Your task to perform on an android device: show emergency info Image 0: 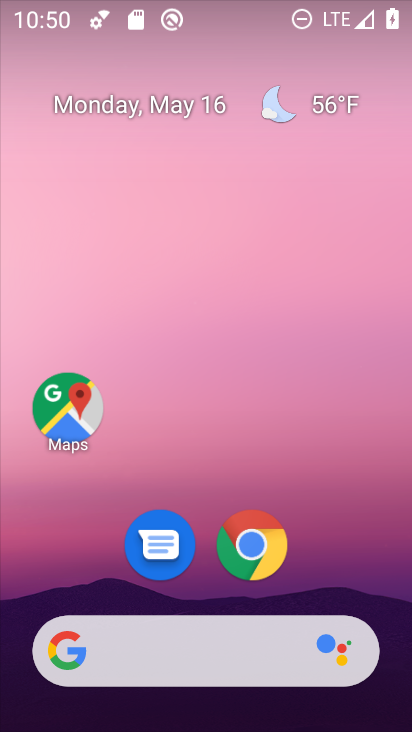
Step 0: drag from (304, 554) to (253, 110)
Your task to perform on an android device: show emergency info Image 1: 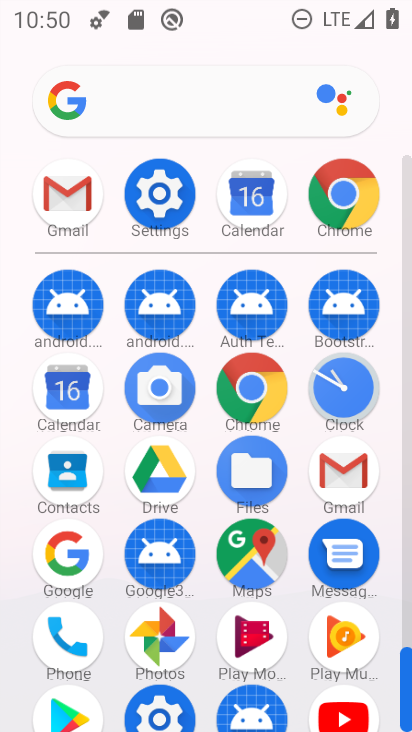
Step 1: click (159, 195)
Your task to perform on an android device: show emergency info Image 2: 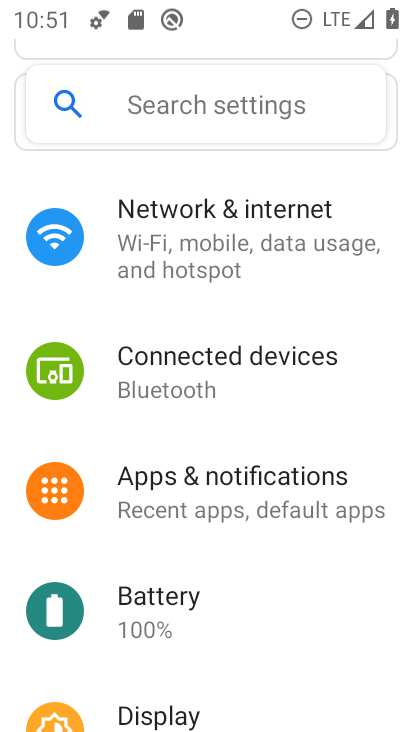
Step 2: drag from (235, 636) to (206, 339)
Your task to perform on an android device: show emergency info Image 3: 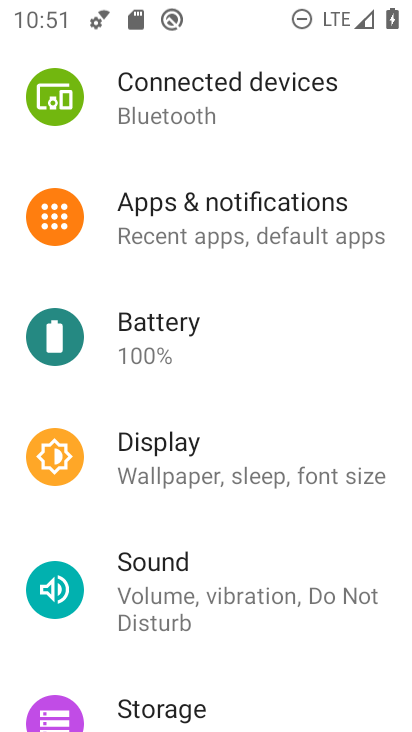
Step 3: drag from (228, 550) to (217, 396)
Your task to perform on an android device: show emergency info Image 4: 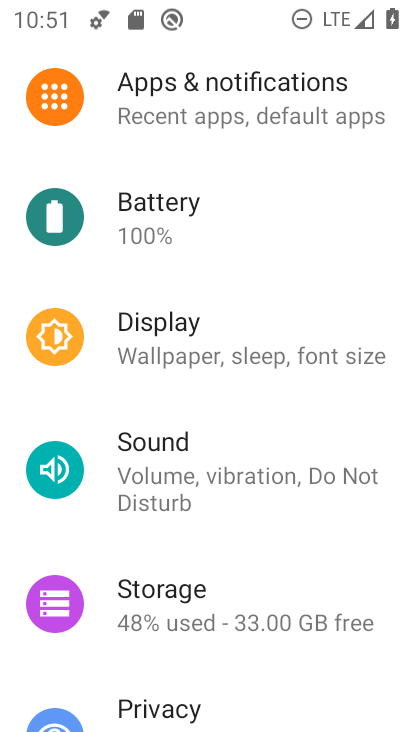
Step 4: drag from (230, 666) to (238, 453)
Your task to perform on an android device: show emergency info Image 5: 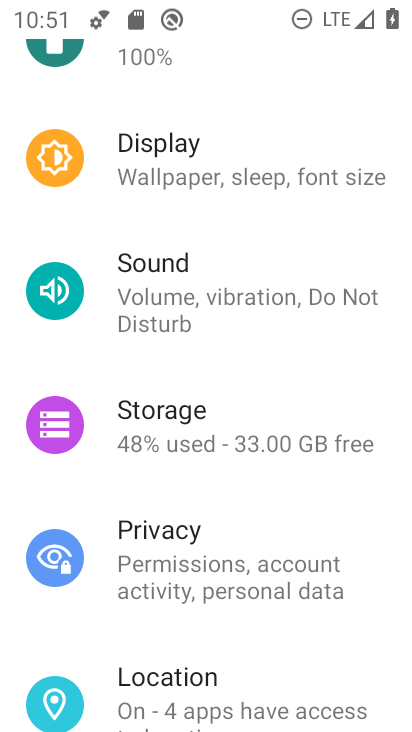
Step 5: drag from (197, 641) to (222, 400)
Your task to perform on an android device: show emergency info Image 6: 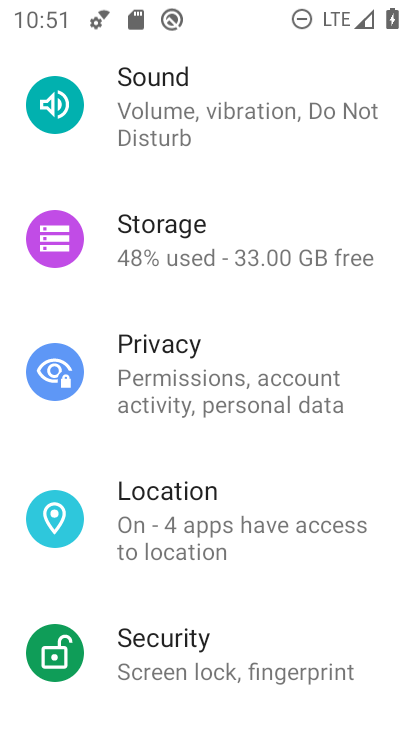
Step 6: drag from (170, 607) to (209, 361)
Your task to perform on an android device: show emergency info Image 7: 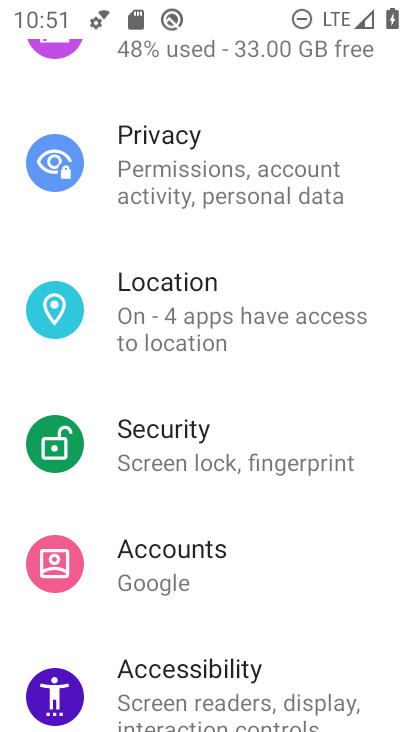
Step 7: drag from (183, 529) to (199, 351)
Your task to perform on an android device: show emergency info Image 8: 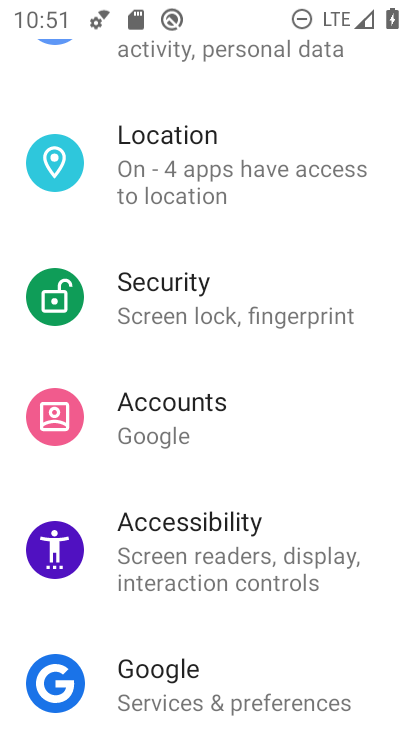
Step 8: drag from (174, 618) to (198, 406)
Your task to perform on an android device: show emergency info Image 9: 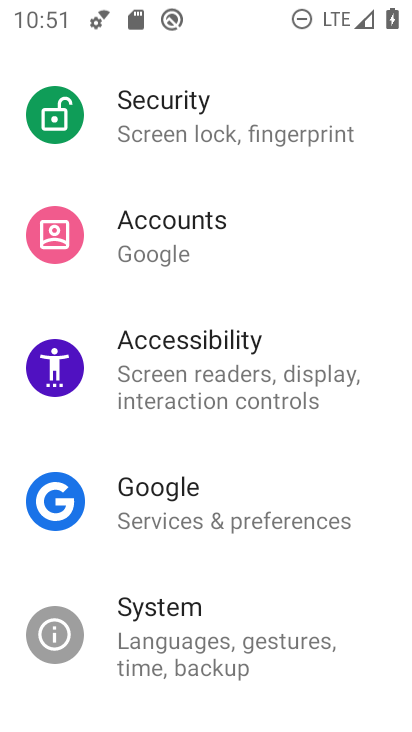
Step 9: drag from (166, 583) to (221, 414)
Your task to perform on an android device: show emergency info Image 10: 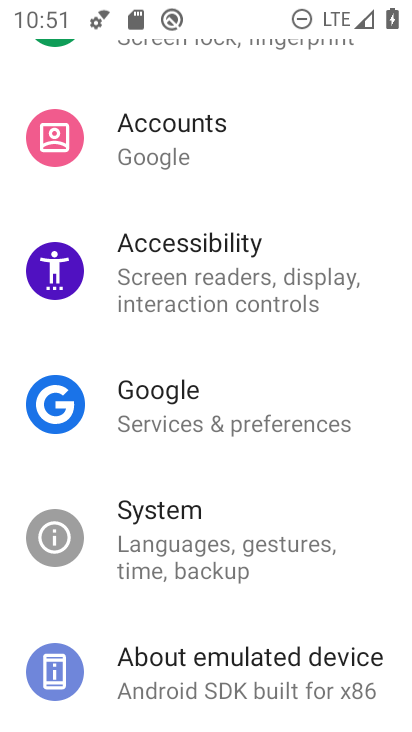
Step 10: click (196, 665)
Your task to perform on an android device: show emergency info Image 11: 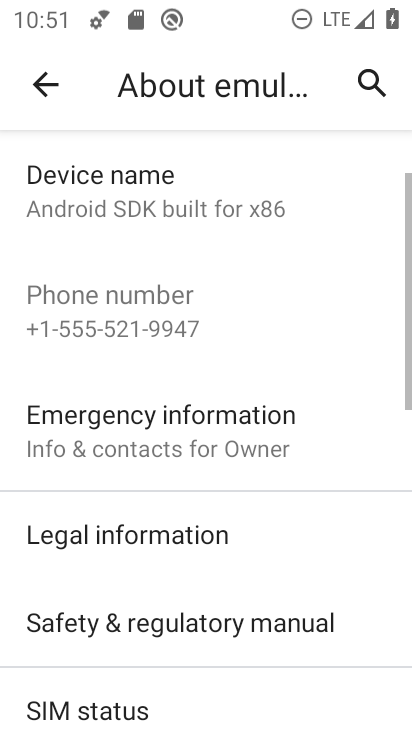
Step 11: click (195, 419)
Your task to perform on an android device: show emergency info Image 12: 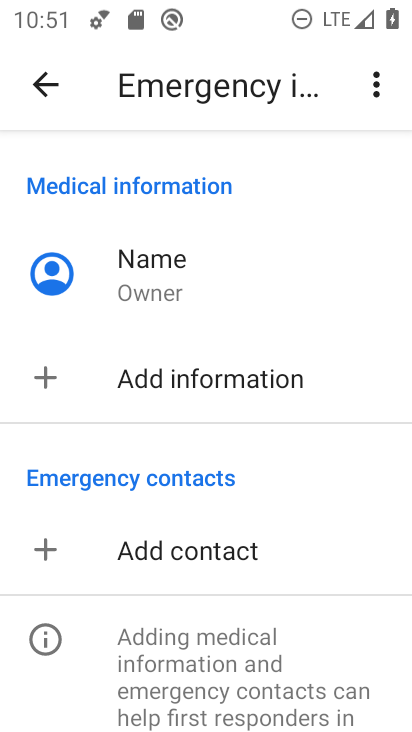
Step 12: task complete